Your task to perform on an android device: Open Youtube and go to "Your channel" Image 0: 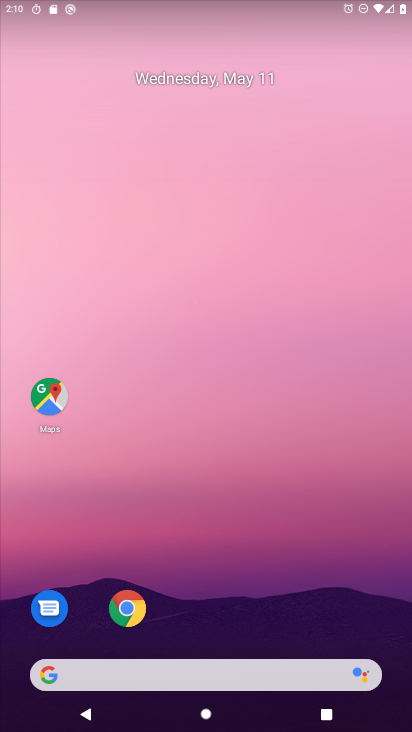
Step 0: drag from (301, 581) to (336, 47)
Your task to perform on an android device: Open Youtube and go to "Your channel" Image 1: 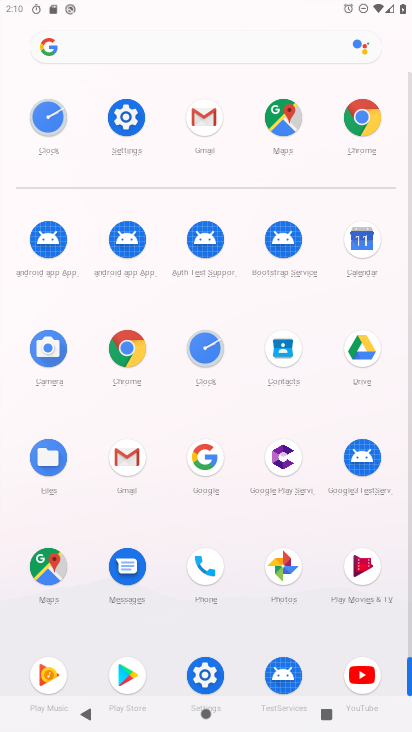
Step 1: click (366, 672)
Your task to perform on an android device: Open Youtube and go to "Your channel" Image 2: 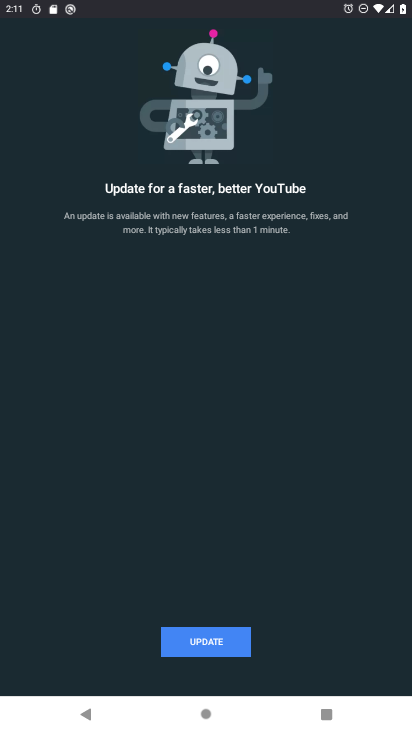
Step 2: task complete